Your task to perform on an android device: Open network settings Image 0: 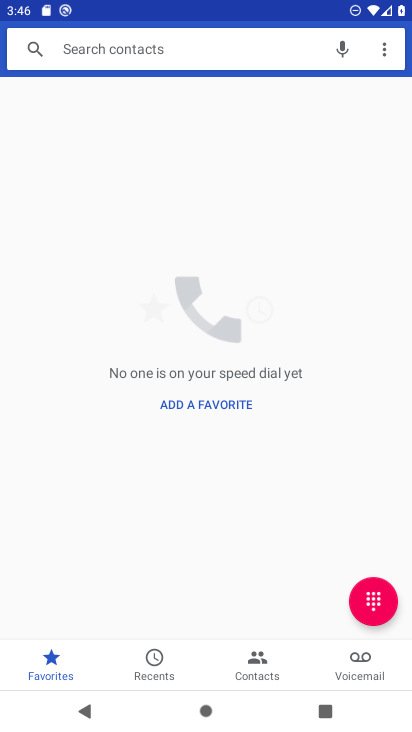
Step 0: press home button
Your task to perform on an android device: Open network settings Image 1: 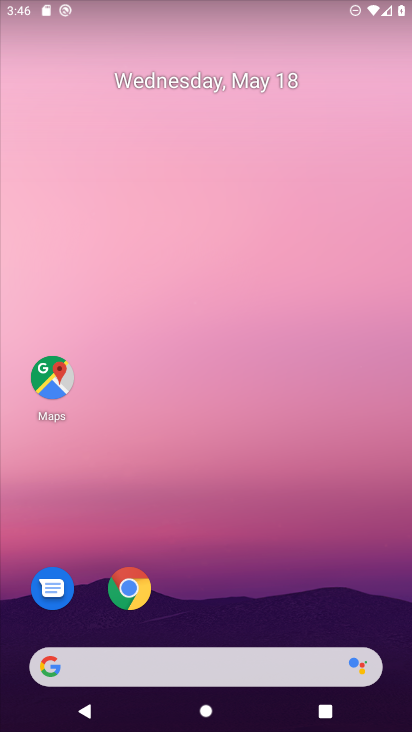
Step 1: drag from (311, 576) to (284, 84)
Your task to perform on an android device: Open network settings Image 2: 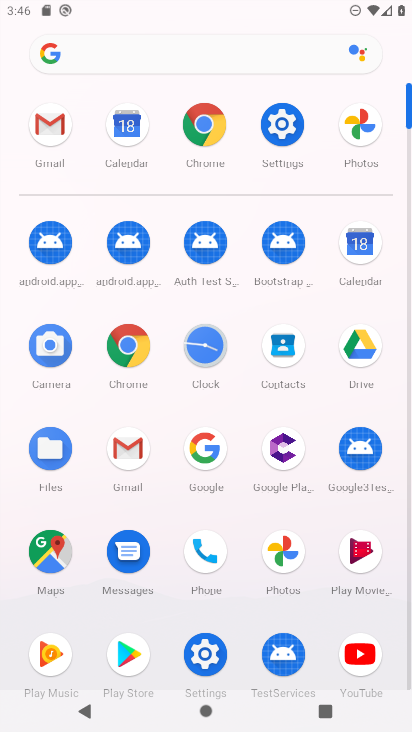
Step 2: click (260, 148)
Your task to perform on an android device: Open network settings Image 3: 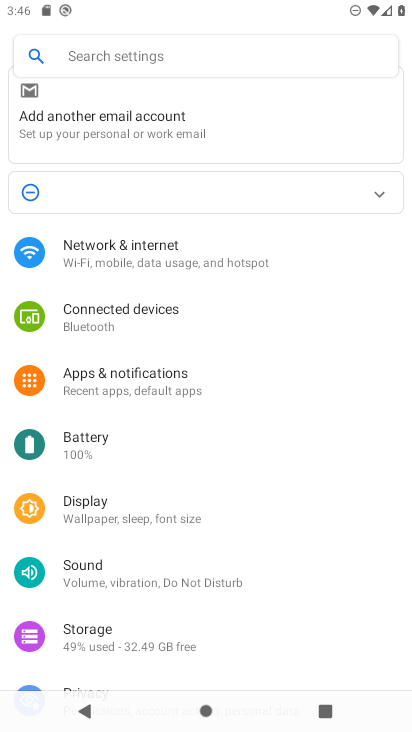
Step 3: click (133, 251)
Your task to perform on an android device: Open network settings Image 4: 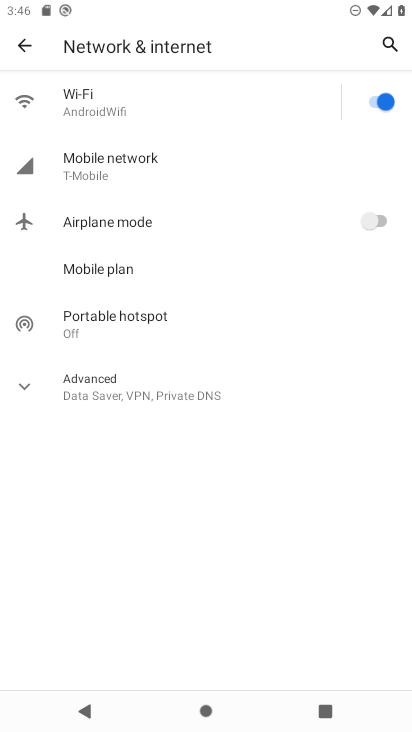
Step 4: task complete